Your task to perform on an android device: turn on data saver in the chrome app Image 0: 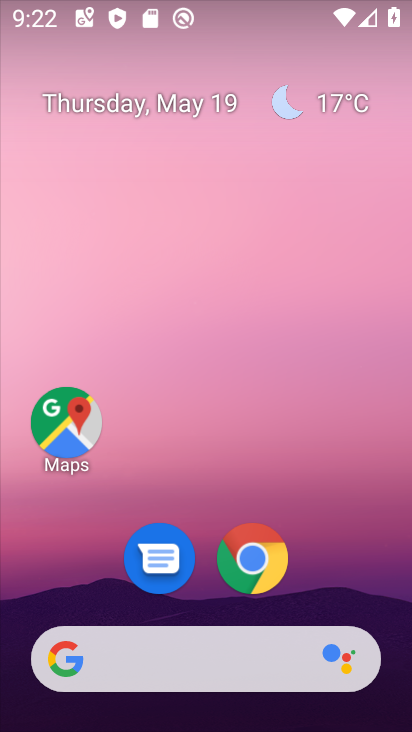
Step 0: click (242, 560)
Your task to perform on an android device: turn on data saver in the chrome app Image 1: 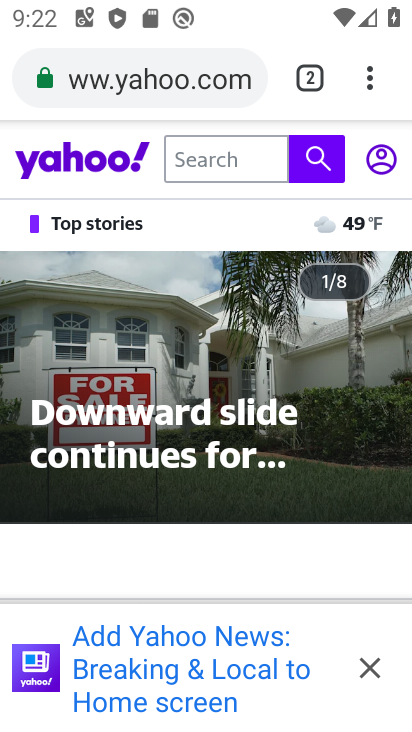
Step 1: click (370, 83)
Your task to perform on an android device: turn on data saver in the chrome app Image 2: 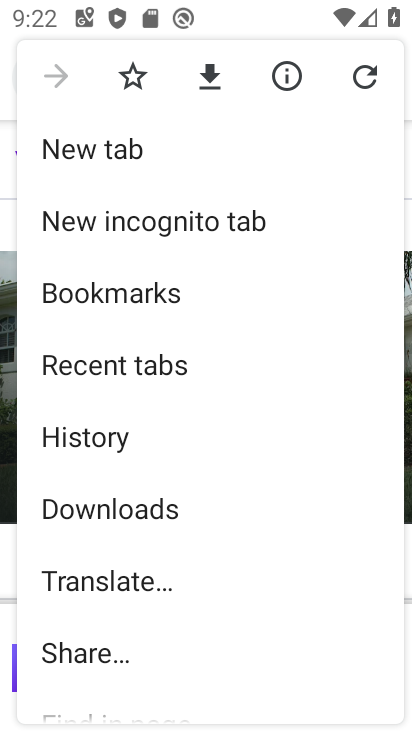
Step 2: drag from (141, 620) to (153, 241)
Your task to perform on an android device: turn on data saver in the chrome app Image 3: 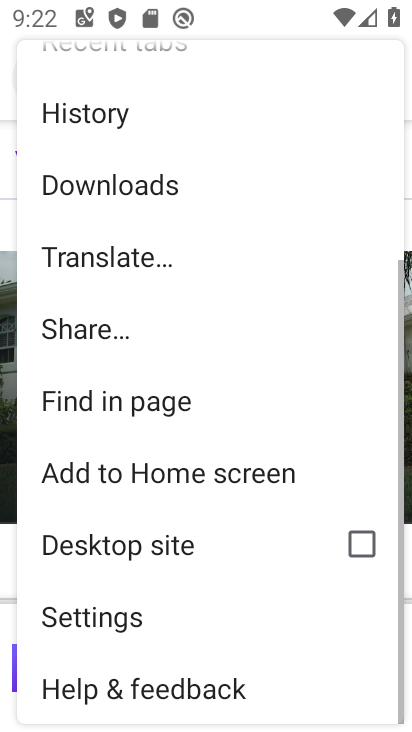
Step 3: click (112, 608)
Your task to perform on an android device: turn on data saver in the chrome app Image 4: 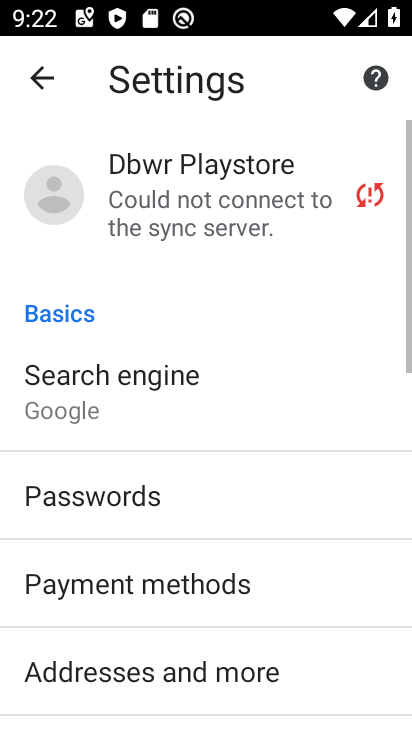
Step 4: drag from (116, 649) to (134, 292)
Your task to perform on an android device: turn on data saver in the chrome app Image 5: 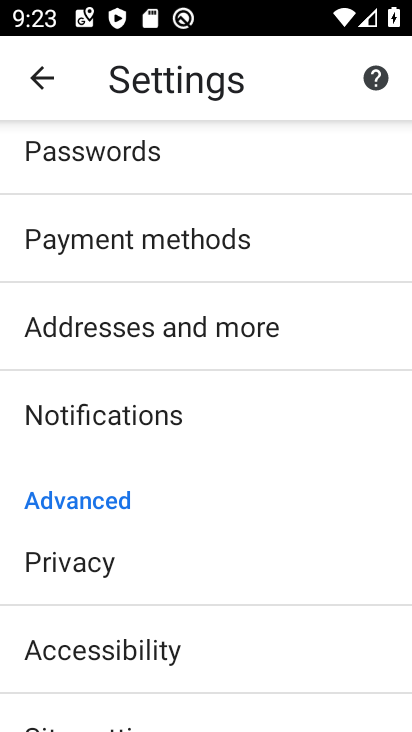
Step 5: drag from (127, 639) to (133, 413)
Your task to perform on an android device: turn on data saver in the chrome app Image 6: 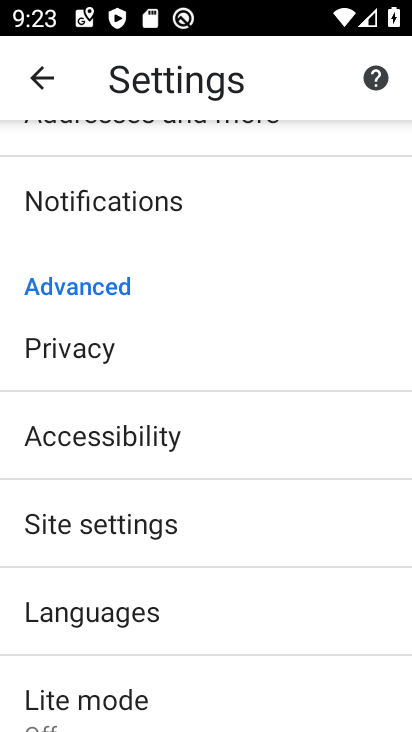
Step 6: drag from (129, 654) to (117, 414)
Your task to perform on an android device: turn on data saver in the chrome app Image 7: 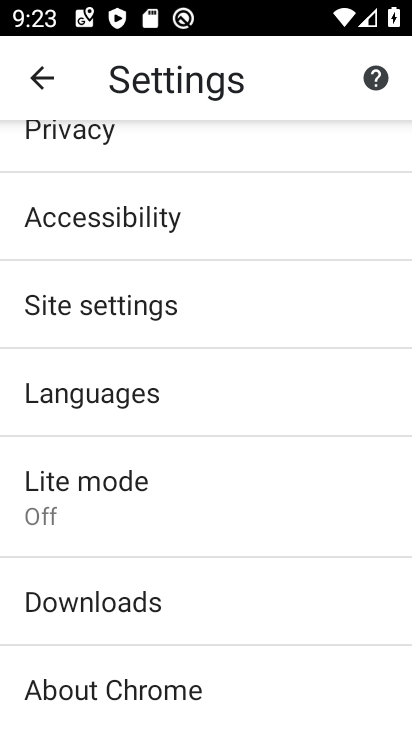
Step 7: click (91, 484)
Your task to perform on an android device: turn on data saver in the chrome app Image 8: 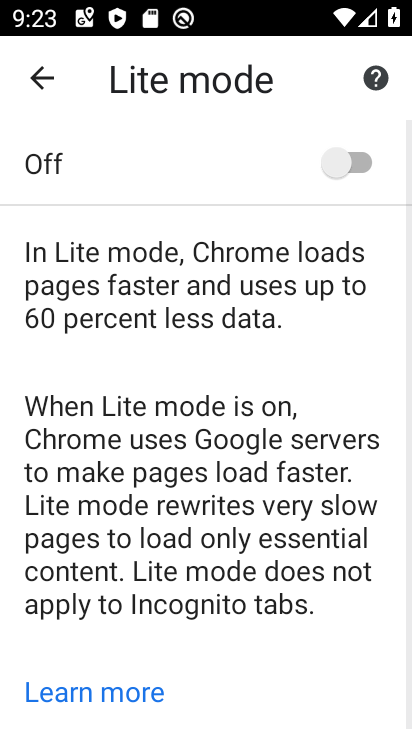
Step 8: click (359, 161)
Your task to perform on an android device: turn on data saver in the chrome app Image 9: 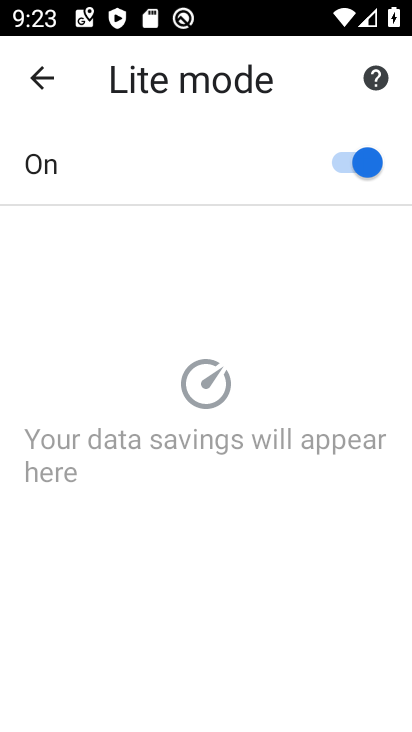
Step 9: task complete